Your task to perform on an android device: star an email in the gmail app Image 0: 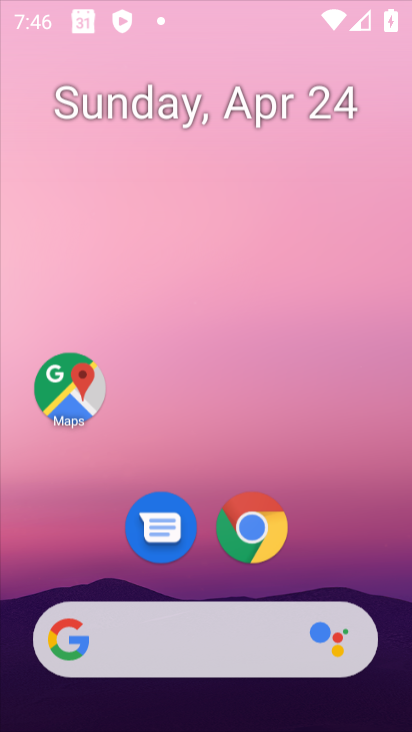
Step 0: drag from (204, 559) to (236, 128)
Your task to perform on an android device: star an email in the gmail app Image 1: 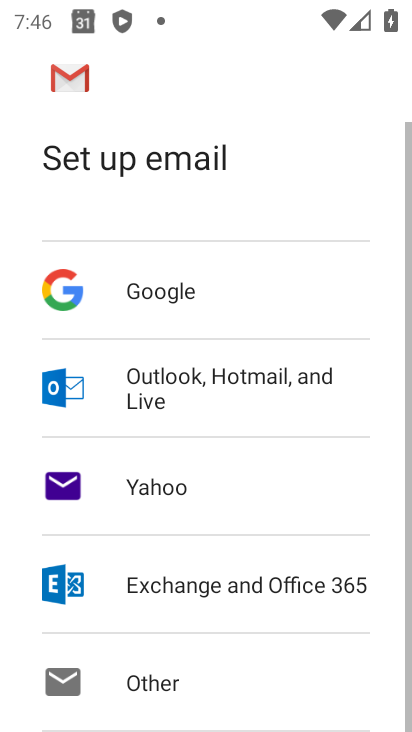
Step 1: press home button
Your task to perform on an android device: star an email in the gmail app Image 2: 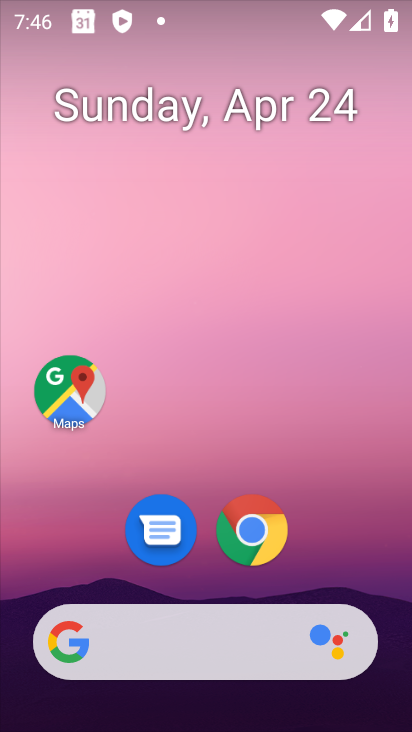
Step 2: drag from (202, 579) to (184, 189)
Your task to perform on an android device: star an email in the gmail app Image 3: 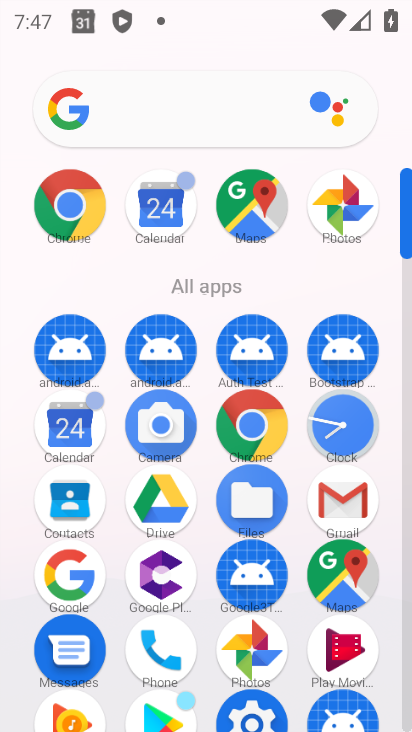
Step 3: click (361, 495)
Your task to perform on an android device: star an email in the gmail app Image 4: 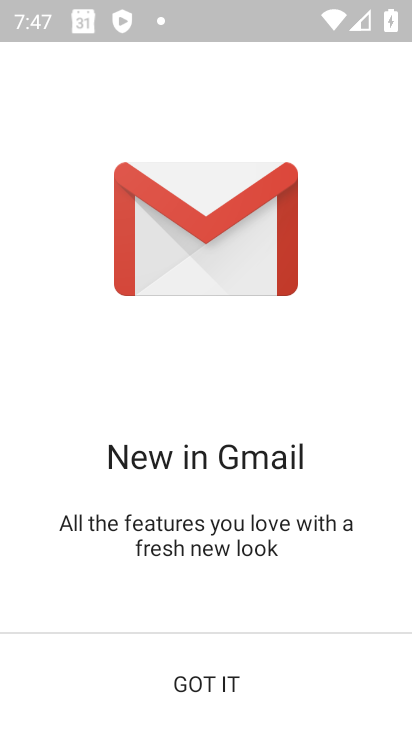
Step 4: click (230, 675)
Your task to perform on an android device: star an email in the gmail app Image 5: 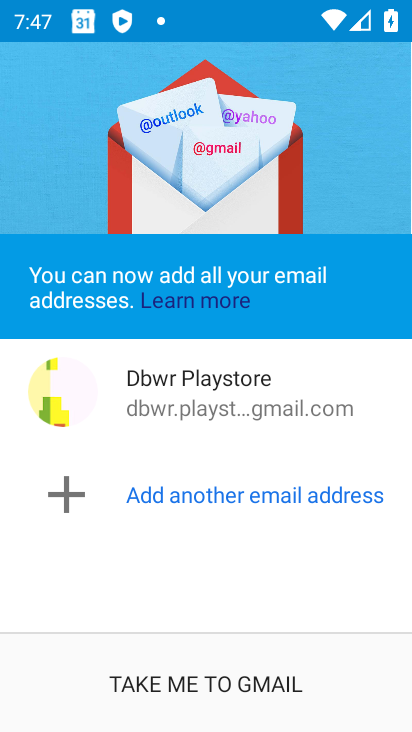
Step 5: click (230, 675)
Your task to perform on an android device: star an email in the gmail app Image 6: 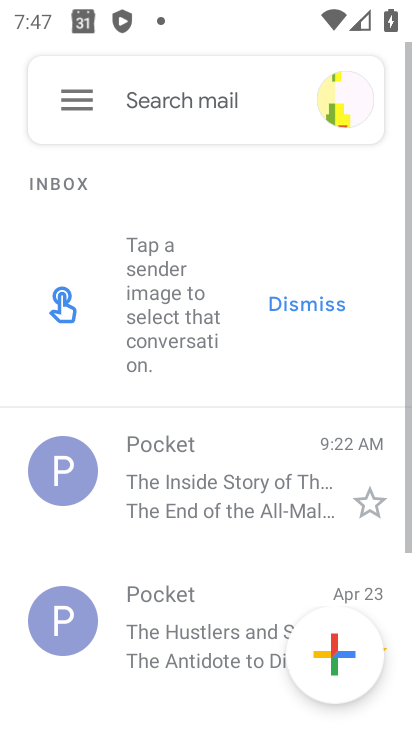
Step 6: click (370, 504)
Your task to perform on an android device: star an email in the gmail app Image 7: 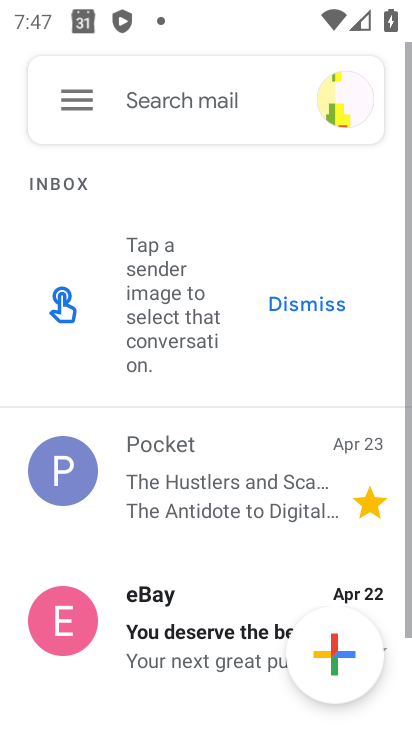
Step 7: task complete